Your task to perform on an android device: Search for Mexican restaurants on Maps Image 0: 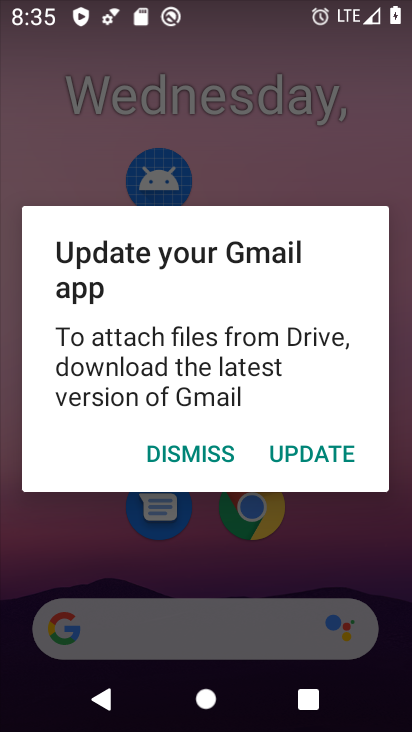
Step 0: click (197, 532)
Your task to perform on an android device: Search for Mexican restaurants on Maps Image 1: 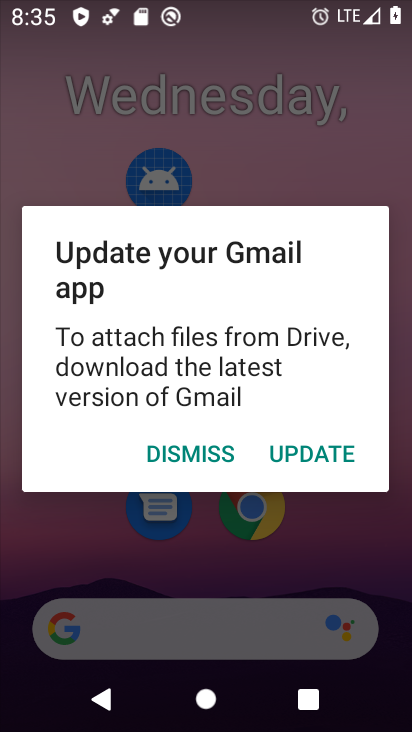
Step 1: press home button
Your task to perform on an android device: Search for Mexican restaurants on Maps Image 2: 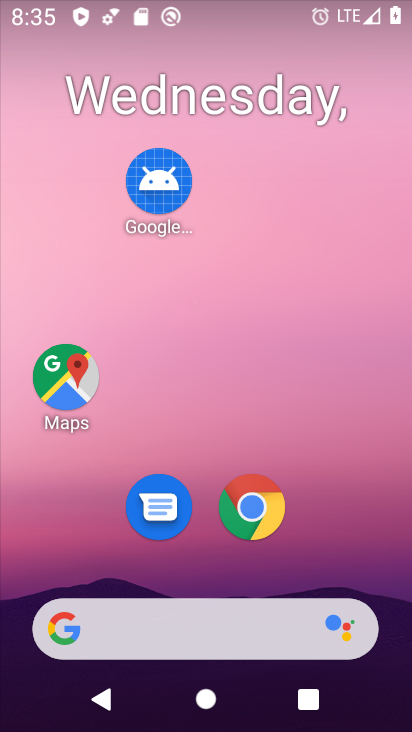
Step 2: click (61, 375)
Your task to perform on an android device: Search for Mexican restaurants on Maps Image 3: 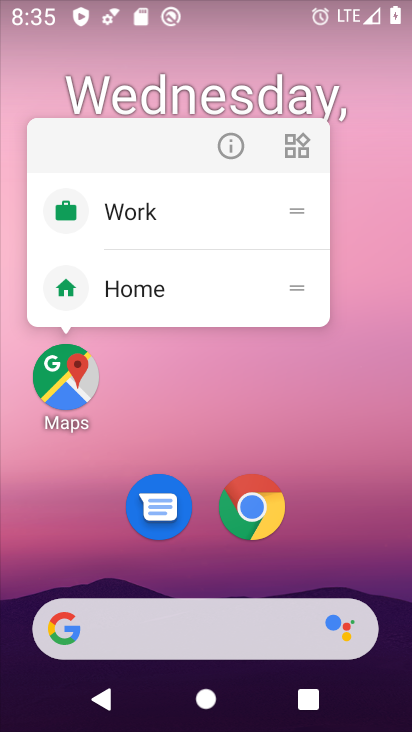
Step 3: click (61, 386)
Your task to perform on an android device: Search for Mexican restaurants on Maps Image 4: 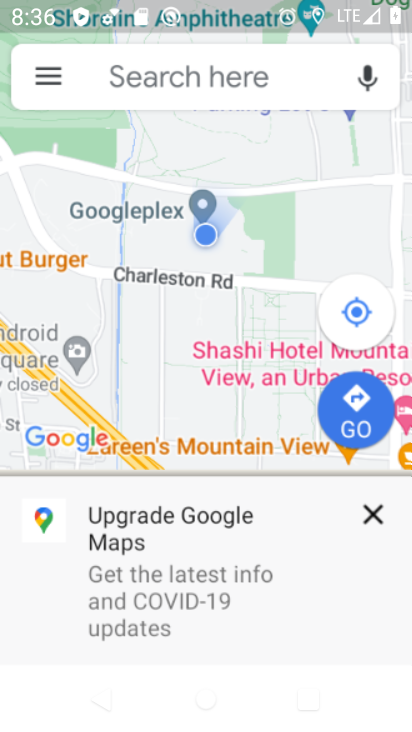
Step 4: click (226, 57)
Your task to perform on an android device: Search for Mexican restaurants on Maps Image 5: 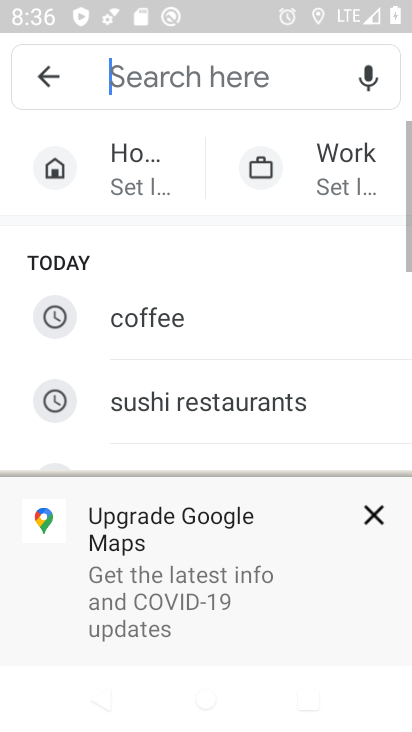
Step 5: click (215, 76)
Your task to perform on an android device: Search for Mexican restaurants on Maps Image 6: 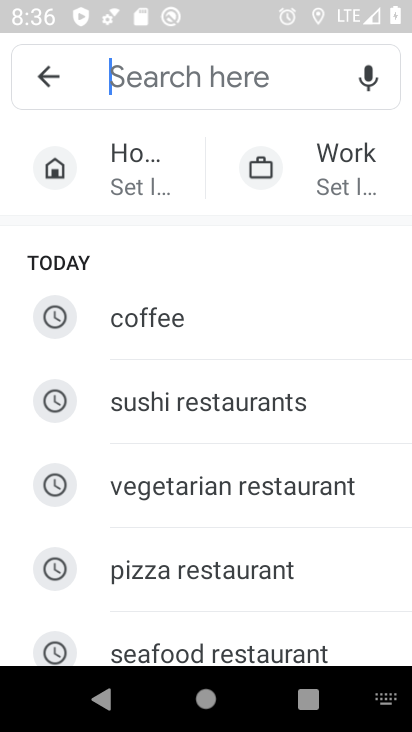
Step 6: drag from (193, 471) to (151, 94)
Your task to perform on an android device: Search for Mexican restaurants on Maps Image 7: 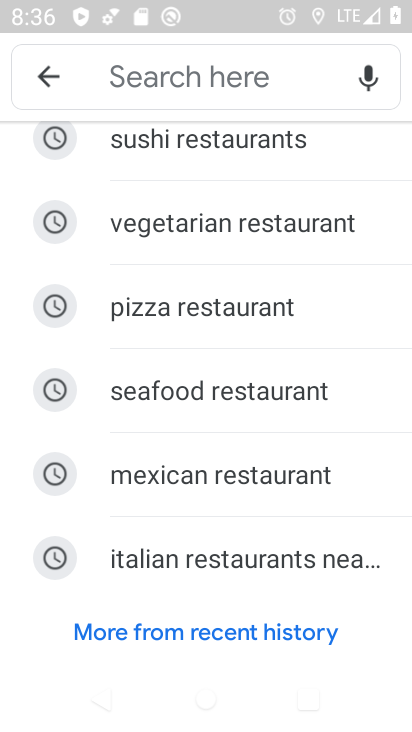
Step 7: click (177, 453)
Your task to perform on an android device: Search for Mexican restaurants on Maps Image 8: 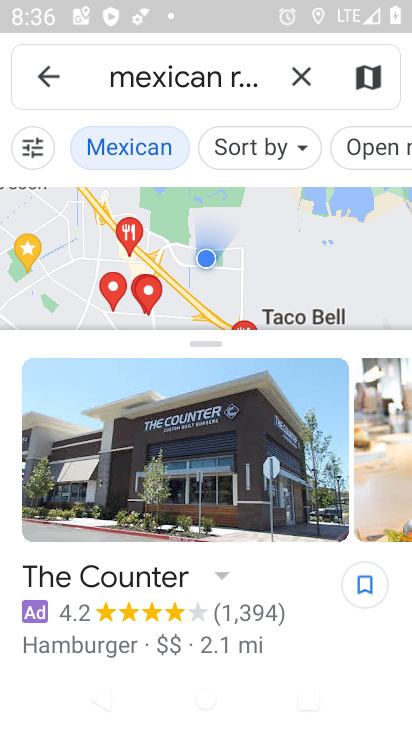
Step 8: drag from (321, 474) to (109, 474)
Your task to perform on an android device: Search for Mexican restaurants on Maps Image 9: 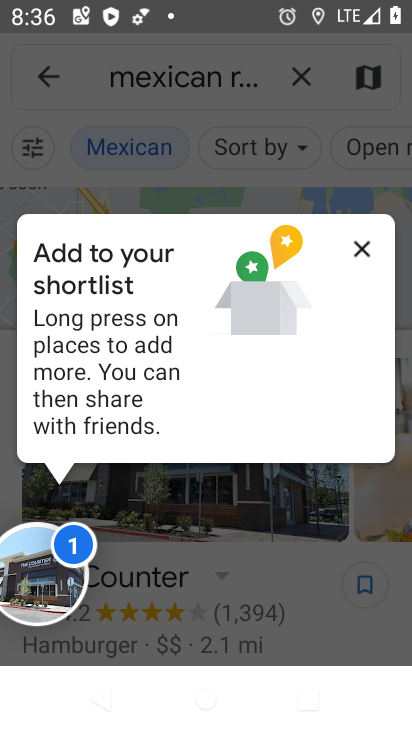
Step 9: drag from (43, 589) to (236, 689)
Your task to perform on an android device: Search for Mexican restaurants on Maps Image 10: 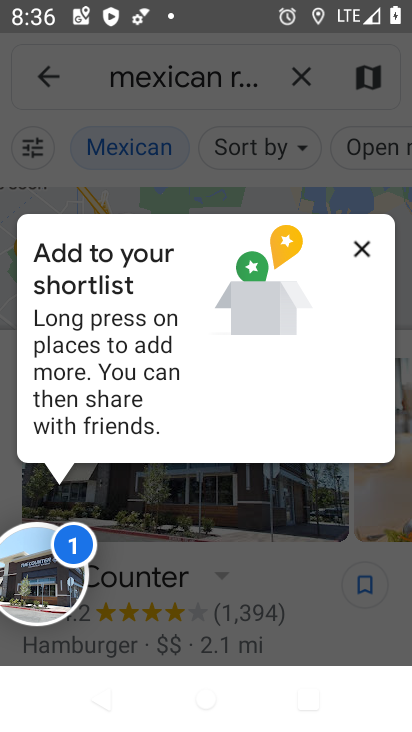
Step 10: click (359, 252)
Your task to perform on an android device: Search for Mexican restaurants on Maps Image 11: 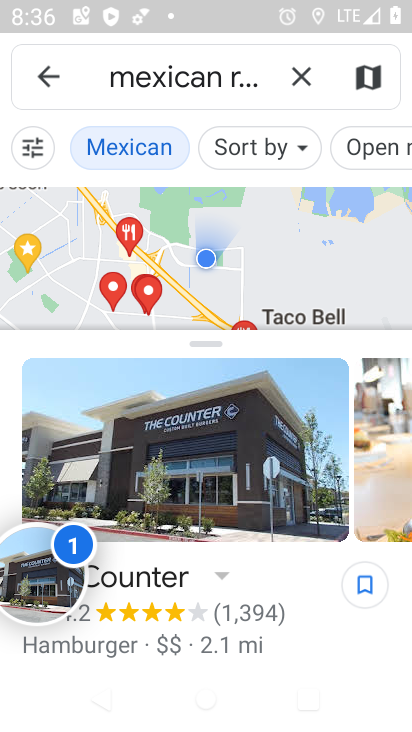
Step 11: task complete